Your task to perform on an android device: toggle javascript in the chrome app Image 0: 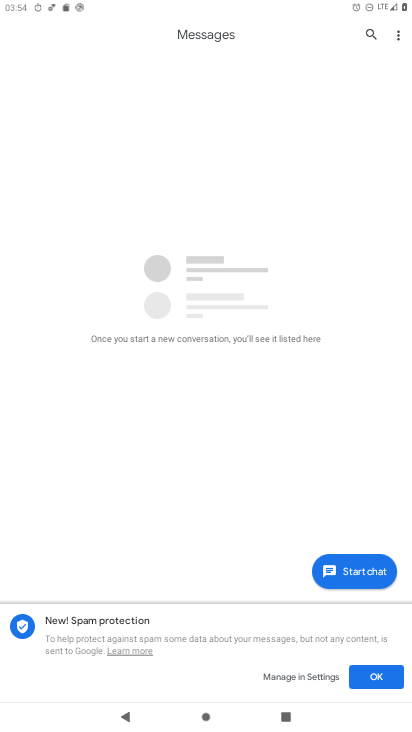
Step 0: press home button
Your task to perform on an android device: toggle javascript in the chrome app Image 1: 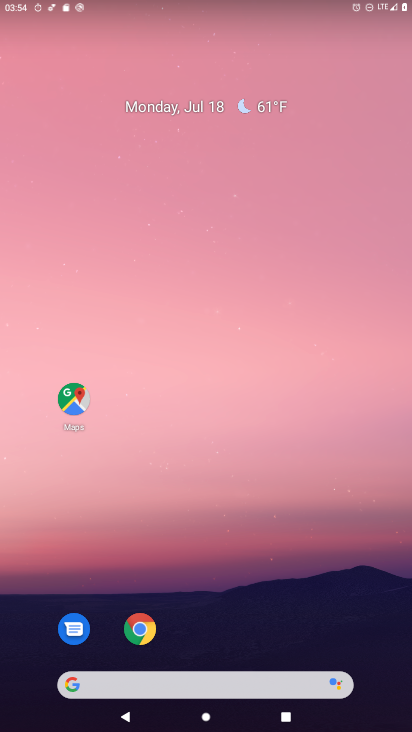
Step 1: click (141, 630)
Your task to perform on an android device: toggle javascript in the chrome app Image 2: 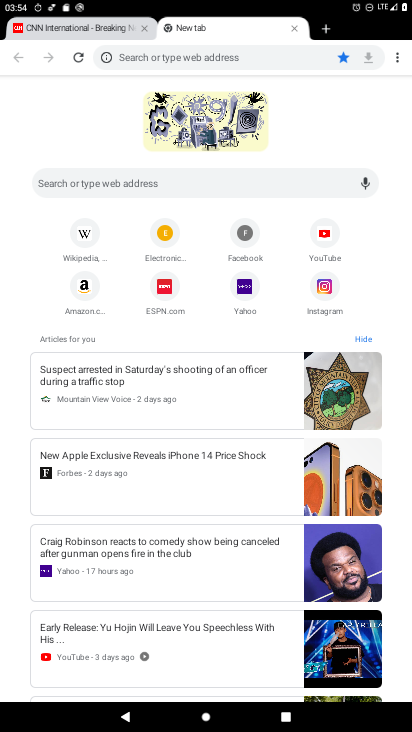
Step 2: click (398, 57)
Your task to perform on an android device: toggle javascript in the chrome app Image 3: 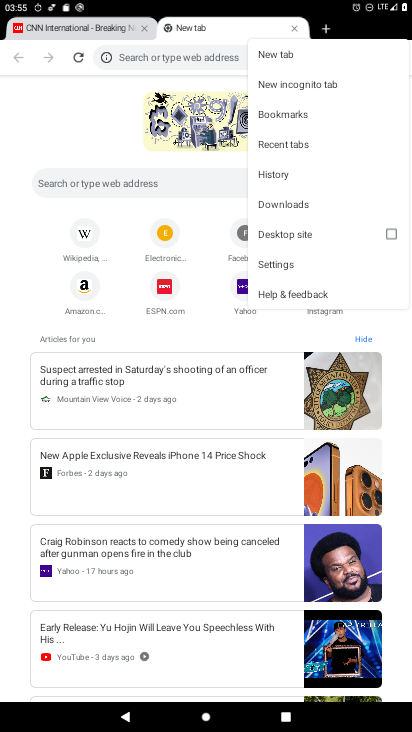
Step 3: click (285, 266)
Your task to perform on an android device: toggle javascript in the chrome app Image 4: 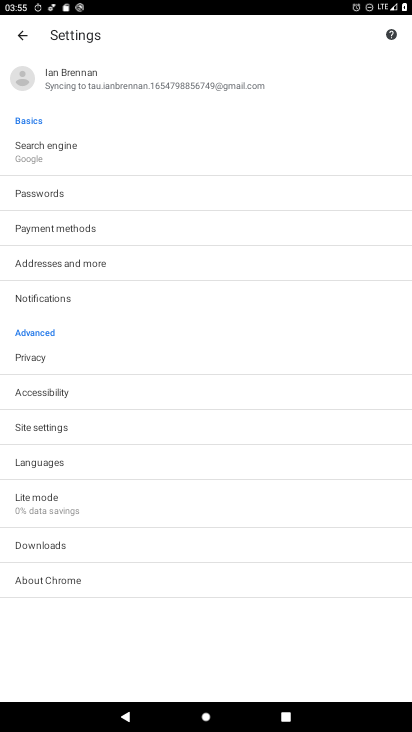
Step 4: click (57, 427)
Your task to perform on an android device: toggle javascript in the chrome app Image 5: 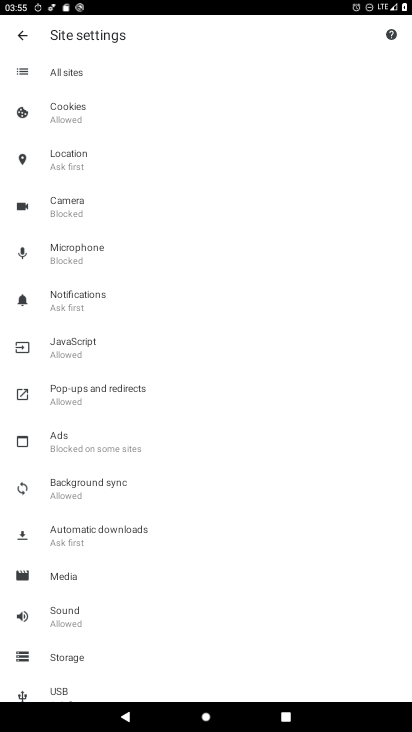
Step 5: click (72, 354)
Your task to perform on an android device: toggle javascript in the chrome app Image 6: 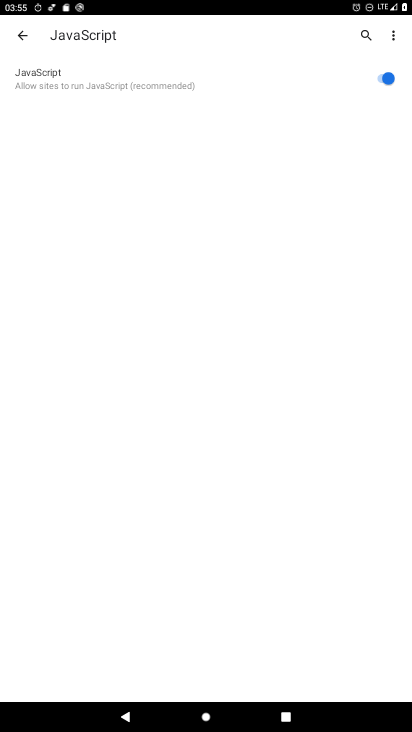
Step 6: click (383, 80)
Your task to perform on an android device: toggle javascript in the chrome app Image 7: 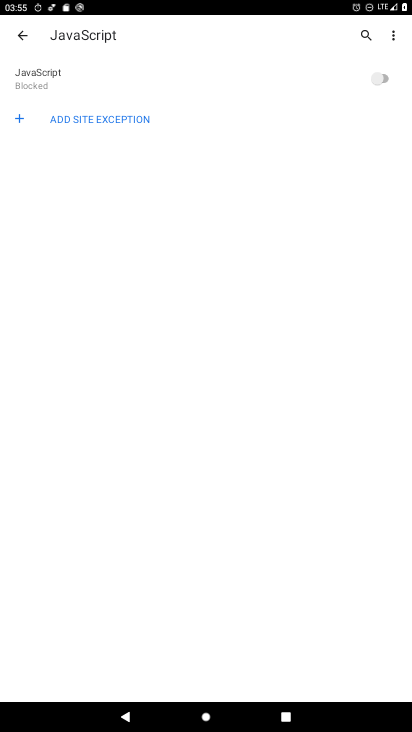
Step 7: task complete